Your task to perform on an android device: show emergency info Image 0: 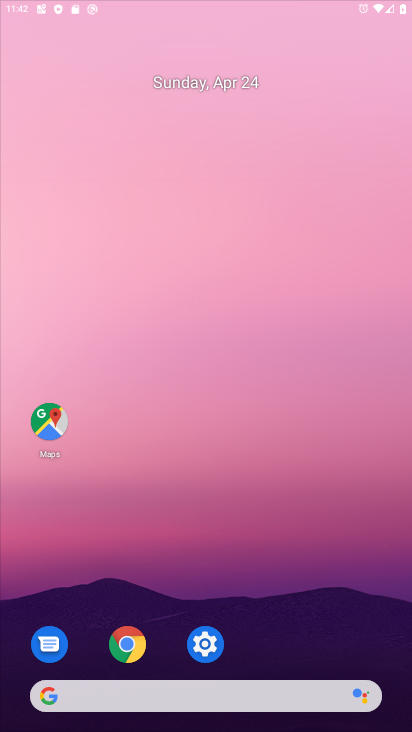
Step 0: drag from (79, 133) to (125, 10)
Your task to perform on an android device: show emergency info Image 1: 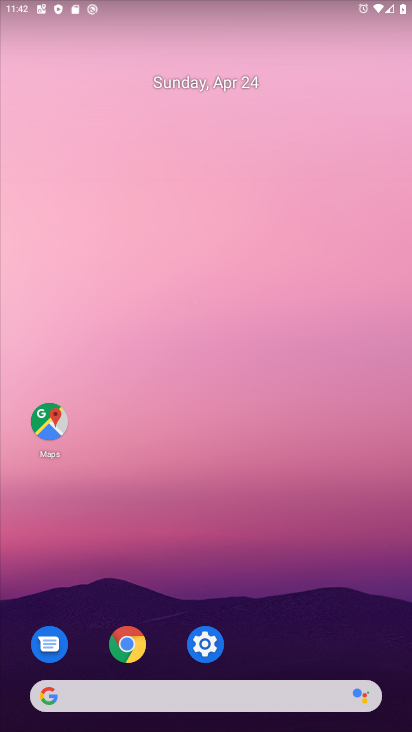
Step 1: drag from (316, 722) to (54, 58)
Your task to perform on an android device: show emergency info Image 2: 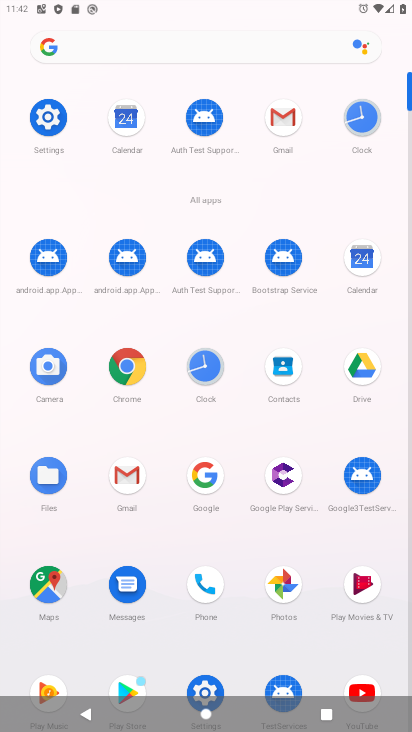
Step 2: drag from (330, 711) to (86, 28)
Your task to perform on an android device: show emergency info Image 3: 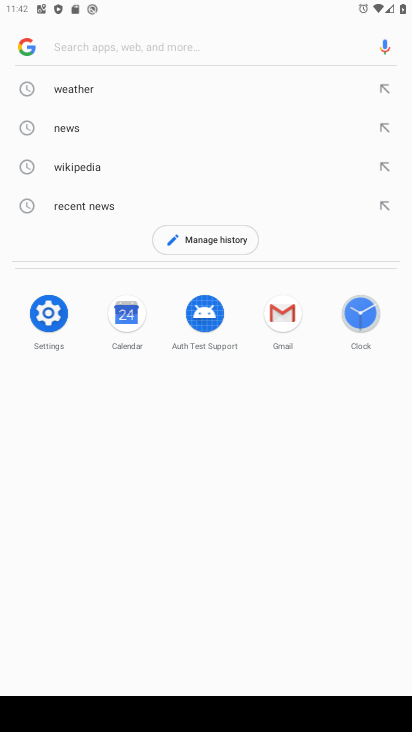
Step 3: press home button
Your task to perform on an android device: show emergency info Image 4: 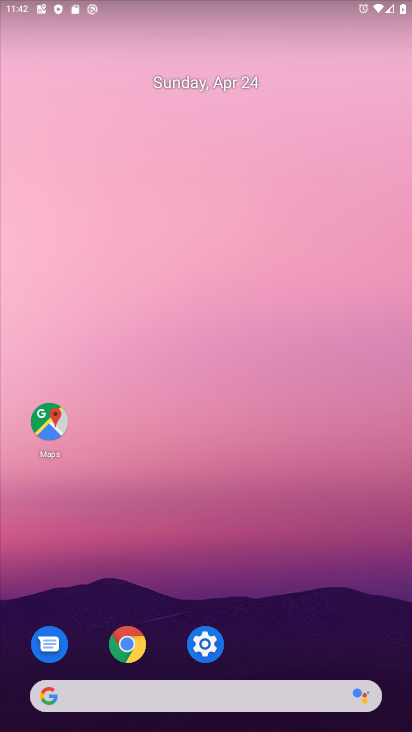
Step 4: click (99, 70)
Your task to perform on an android device: show emergency info Image 5: 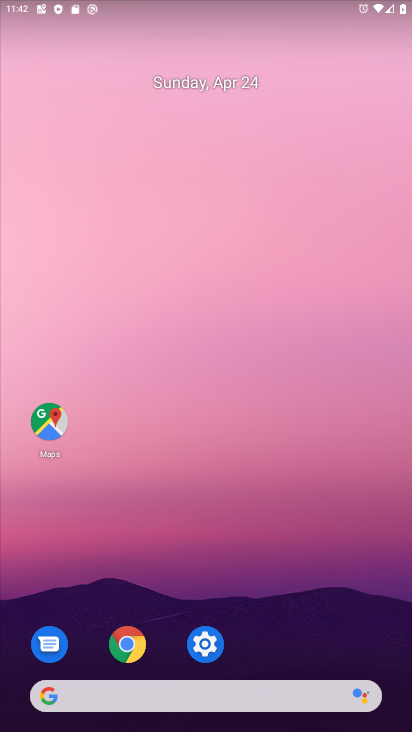
Step 5: drag from (304, 708) to (78, 52)
Your task to perform on an android device: show emergency info Image 6: 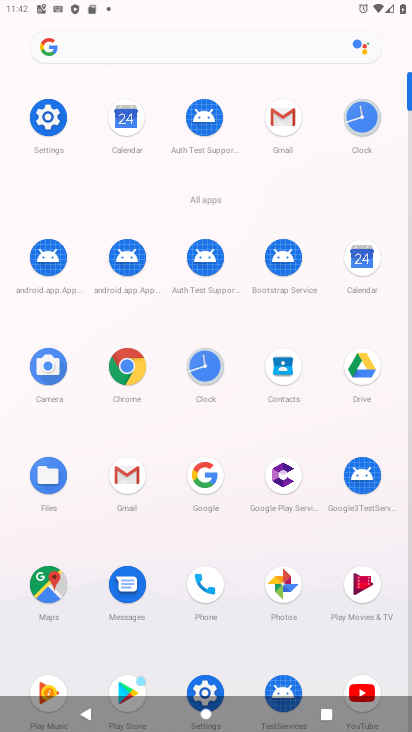
Step 6: drag from (255, 637) to (168, 18)
Your task to perform on an android device: show emergency info Image 7: 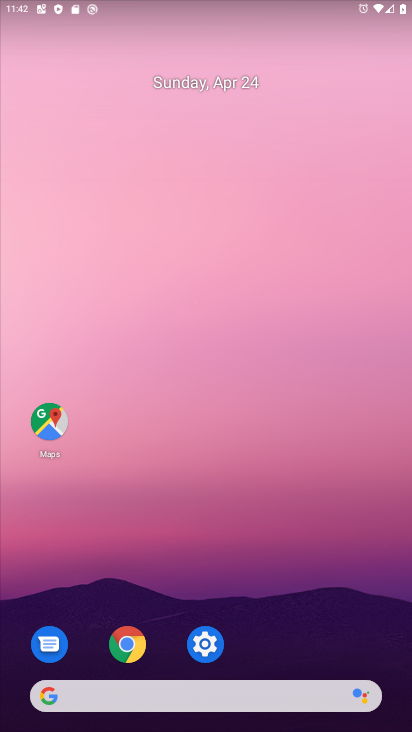
Step 7: drag from (240, 712) to (123, 94)
Your task to perform on an android device: show emergency info Image 8: 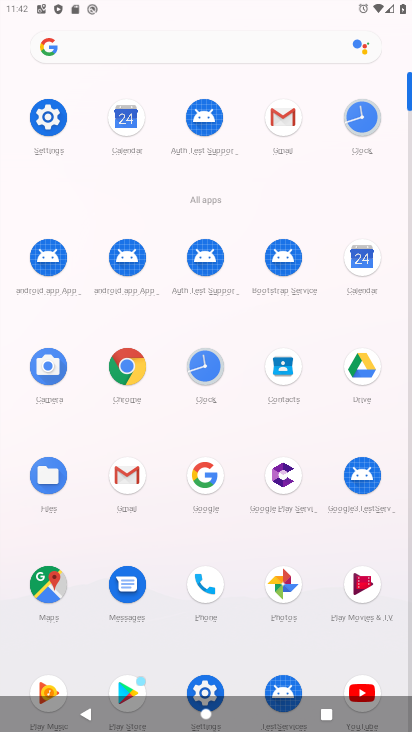
Step 8: drag from (302, 706) to (119, 6)
Your task to perform on an android device: show emergency info Image 9: 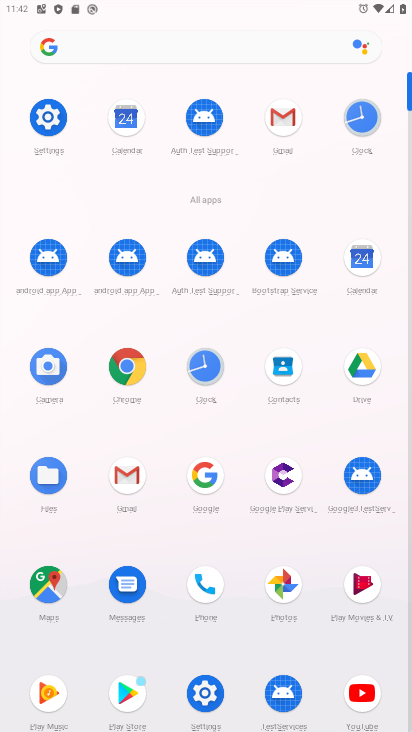
Step 9: click (43, 117)
Your task to perform on an android device: show emergency info Image 10: 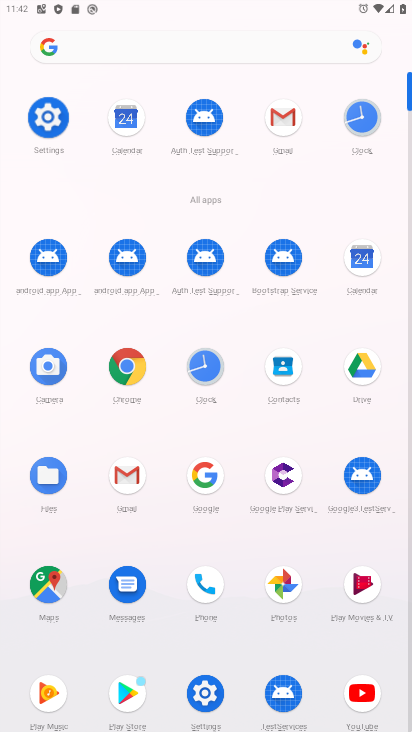
Step 10: click (44, 118)
Your task to perform on an android device: show emergency info Image 11: 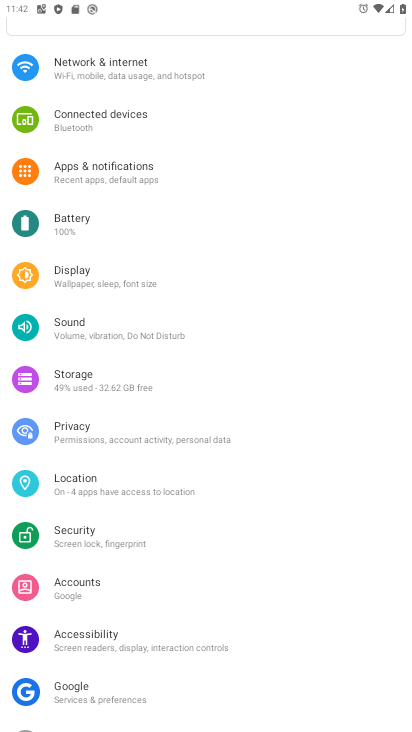
Step 11: drag from (187, 484) to (46, 64)
Your task to perform on an android device: show emergency info Image 12: 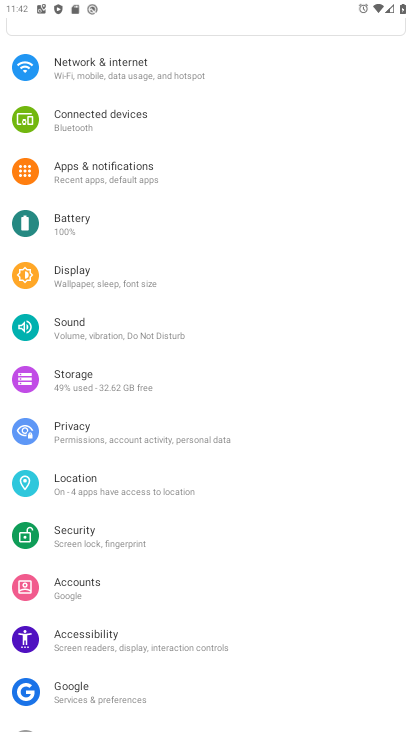
Step 12: drag from (146, 498) to (103, 26)
Your task to perform on an android device: show emergency info Image 13: 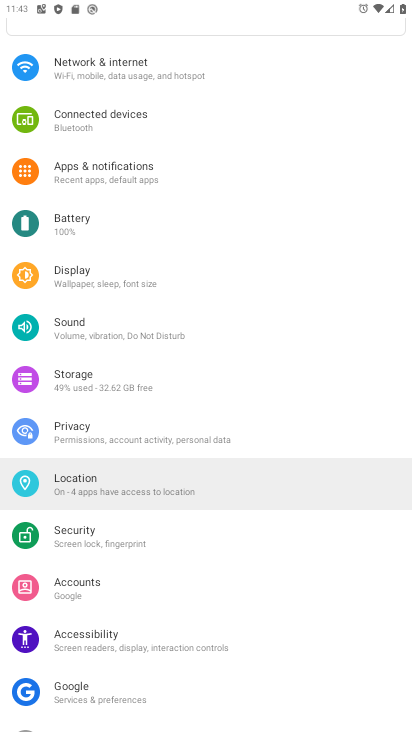
Step 13: drag from (139, 500) to (57, 8)
Your task to perform on an android device: show emergency info Image 14: 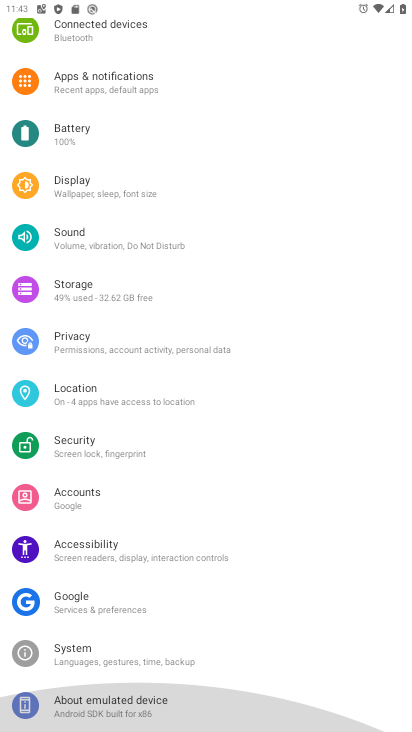
Step 14: drag from (99, 434) to (91, 8)
Your task to perform on an android device: show emergency info Image 15: 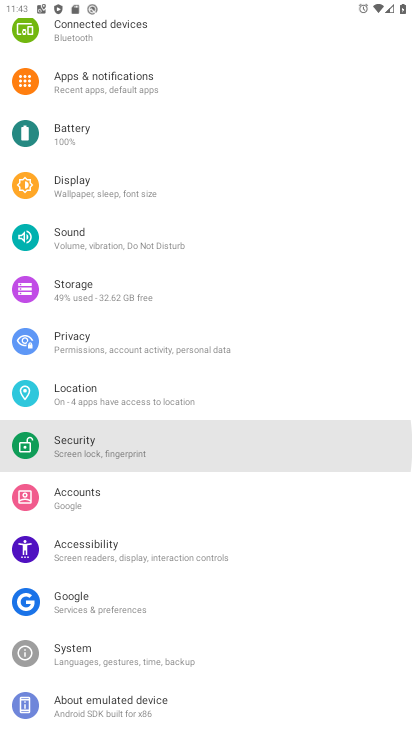
Step 15: drag from (160, 487) to (94, 1)
Your task to perform on an android device: show emergency info Image 16: 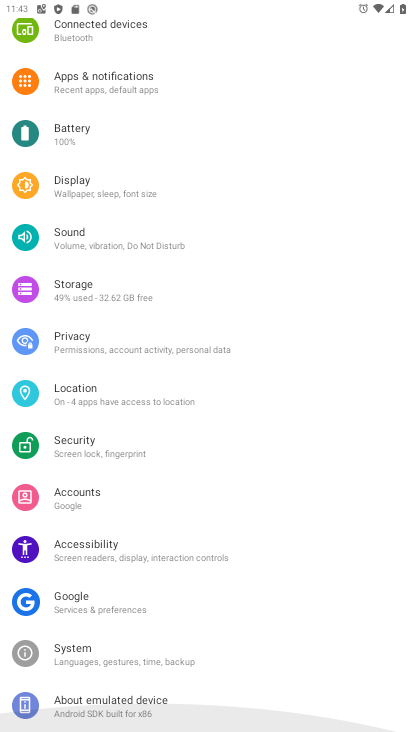
Step 16: click (96, 700)
Your task to perform on an android device: show emergency info Image 17: 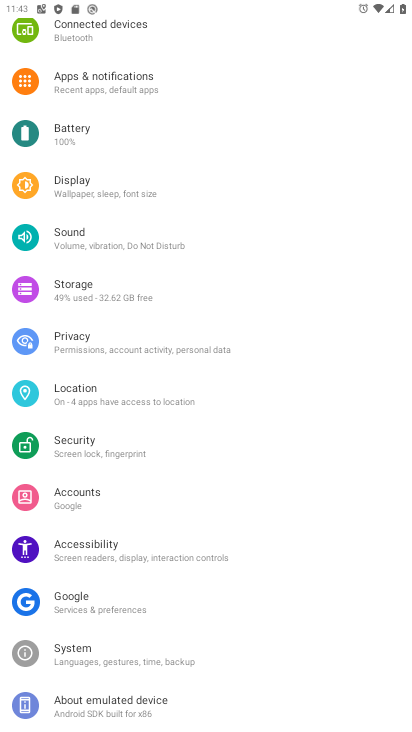
Step 17: click (96, 710)
Your task to perform on an android device: show emergency info Image 18: 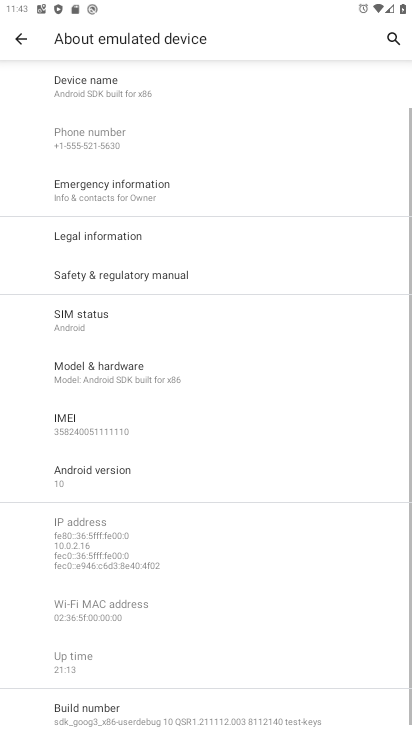
Step 18: click (80, 187)
Your task to perform on an android device: show emergency info Image 19: 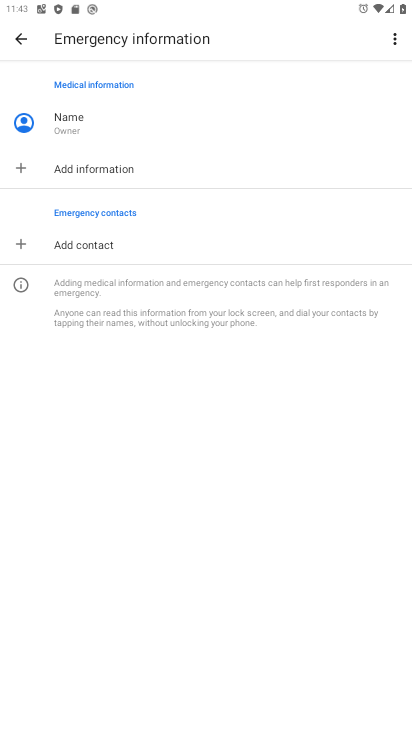
Step 19: task complete